Your task to perform on an android device: What is the recent news? Image 0: 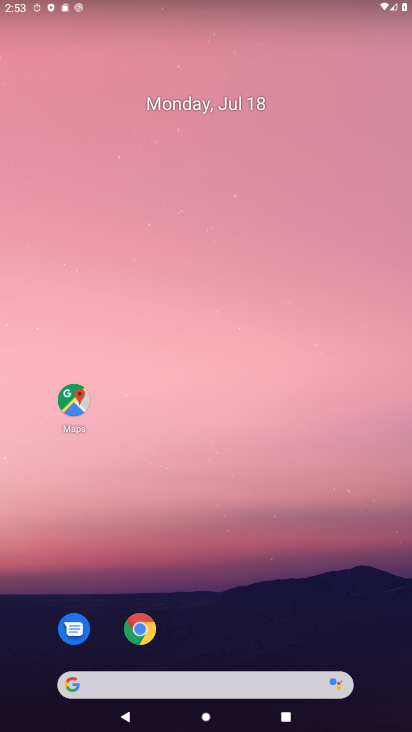
Step 0: click (185, 684)
Your task to perform on an android device: What is the recent news? Image 1: 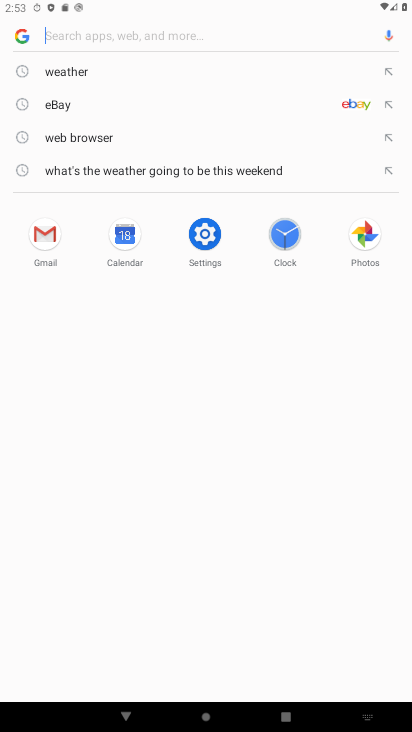
Step 1: type "recent news"
Your task to perform on an android device: What is the recent news? Image 2: 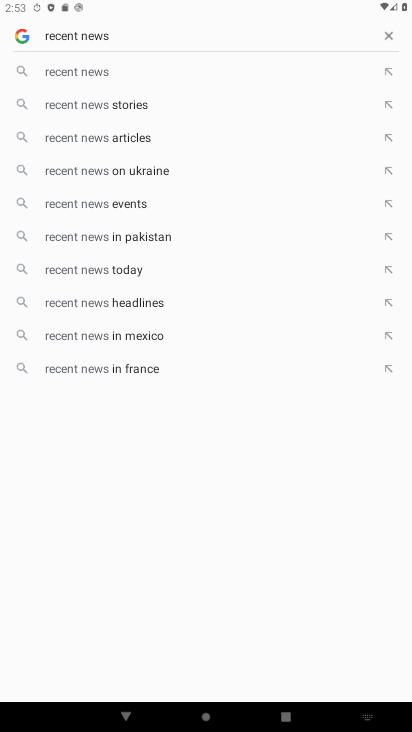
Step 2: click (113, 79)
Your task to perform on an android device: What is the recent news? Image 3: 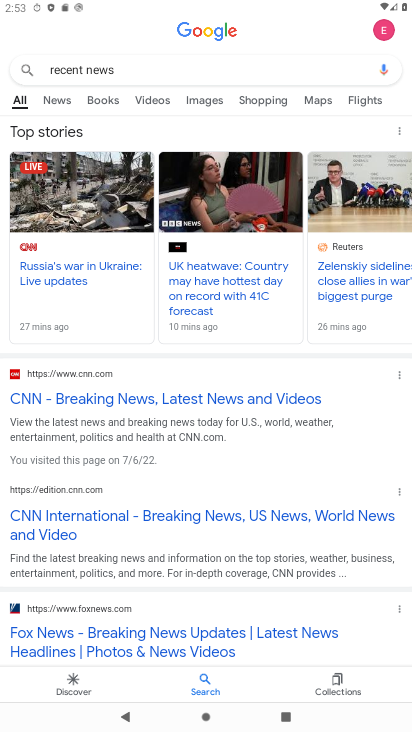
Step 3: task complete